Your task to perform on an android device: Go to privacy settings Image 0: 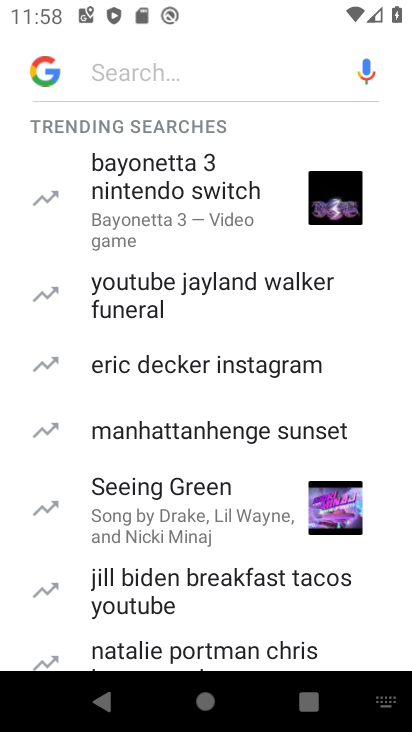
Step 0: press home button
Your task to perform on an android device: Go to privacy settings Image 1: 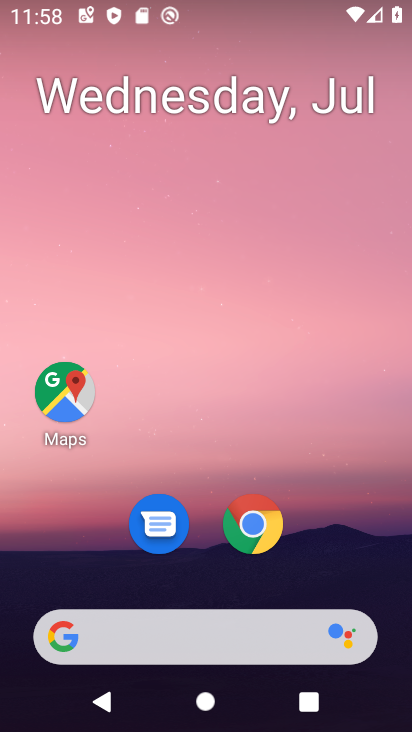
Step 1: drag from (169, 642) to (262, 190)
Your task to perform on an android device: Go to privacy settings Image 2: 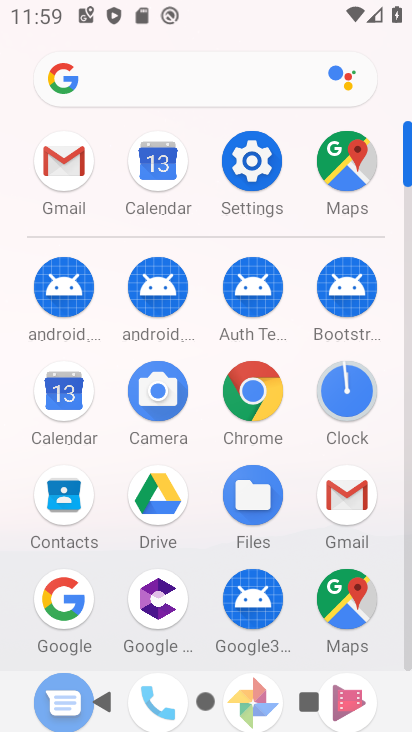
Step 2: click (257, 167)
Your task to perform on an android device: Go to privacy settings Image 3: 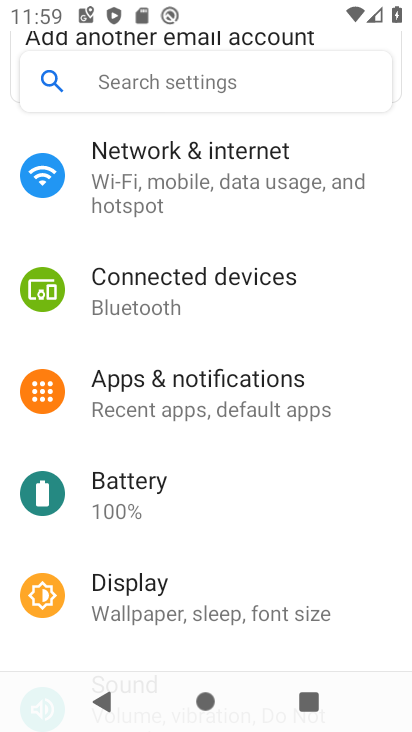
Step 3: drag from (229, 560) to (278, 152)
Your task to perform on an android device: Go to privacy settings Image 4: 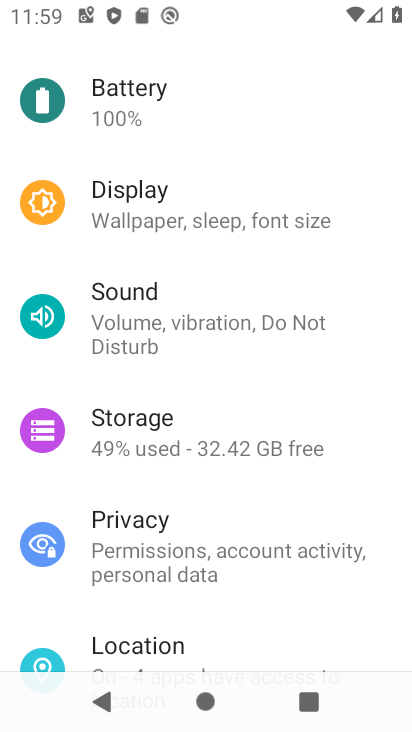
Step 4: click (152, 526)
Your task to perform on an android device: Go to privacy settings Image 5: 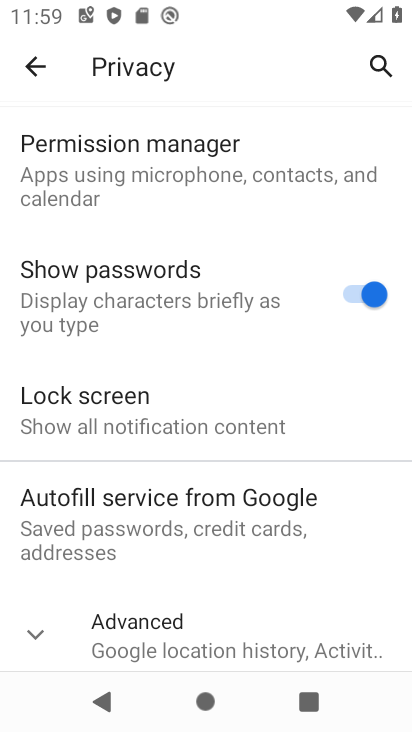
Step 5: task complete